Your task to perform on an android device: open chrome and create a bookmark for the current page Image 0: 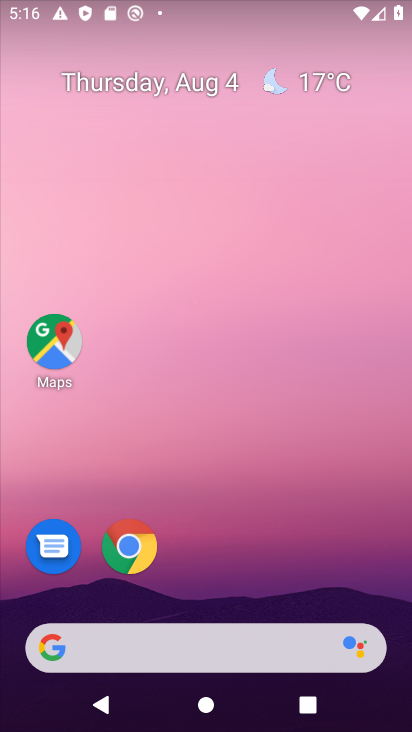
Step 0: drag from (193, 325) to (200, 160)
Your task to perform on an android device: open chrome and create a bookmark for the current page Image 1: 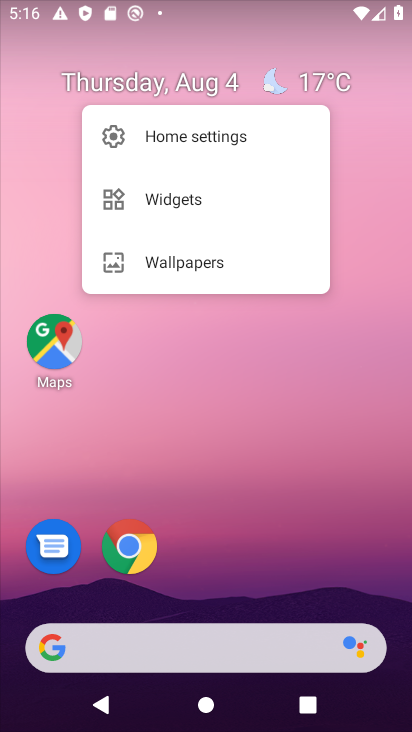
Step 1: click (209, 582)
Your task to perform on an android device: open chrome and create a bookmark for the current page Image 2: 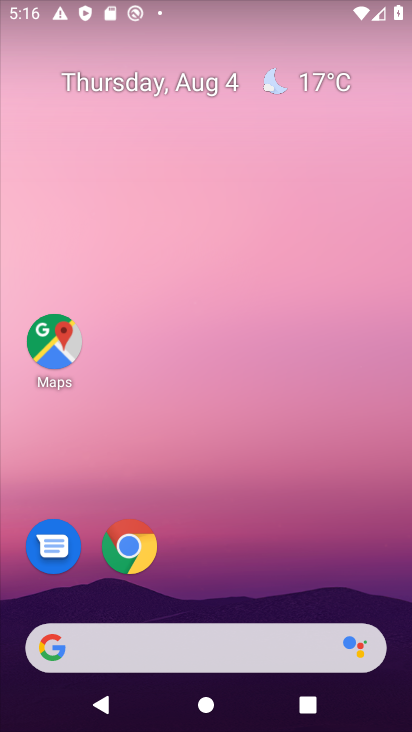
Step 2: drag from (209, 582) to (210, 17)
Your task to perform on an android device: open chrome and create a bookmark for the current page Image 3: 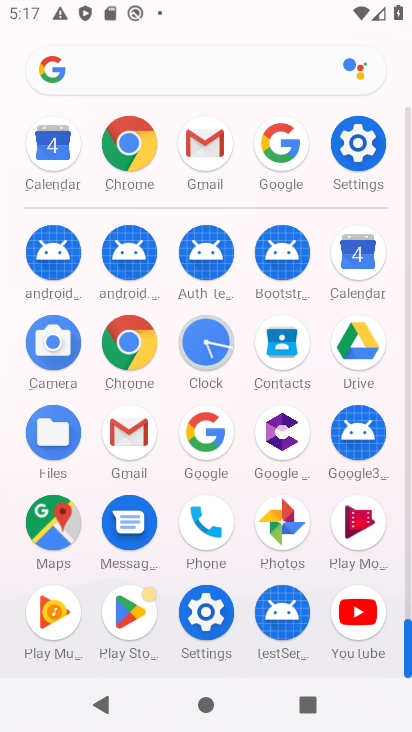
Step 3: click (128, 137)
Your task to perform on an android device: open chrome and create a bookmark for the current page Image 4: 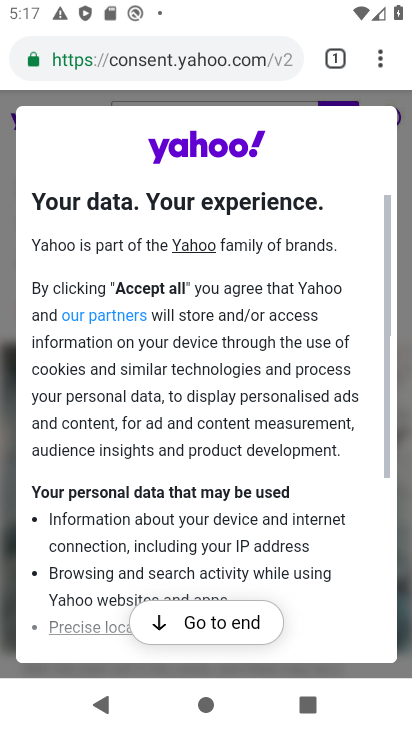
Step 4: click (381, 59)
Your task to perform on an android device: open chrome and create a bookmark for the current page Image 5: 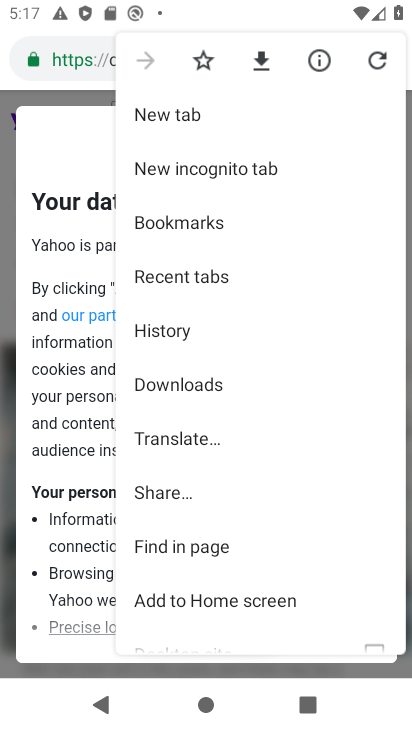
Step 5: click (181, 221)
Your task to perform on an android device: open chrome and create a bookmark for the current page Image 6: 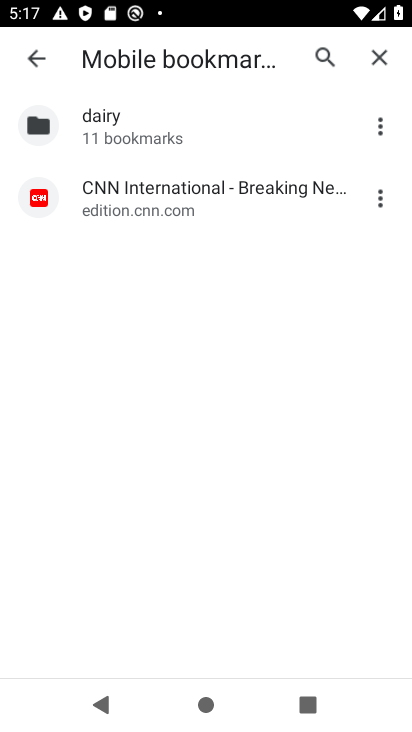
Step 6: click (182, 200)
Your task to perform on an android device: open chrome and create a bookmark for the current page Image 7: 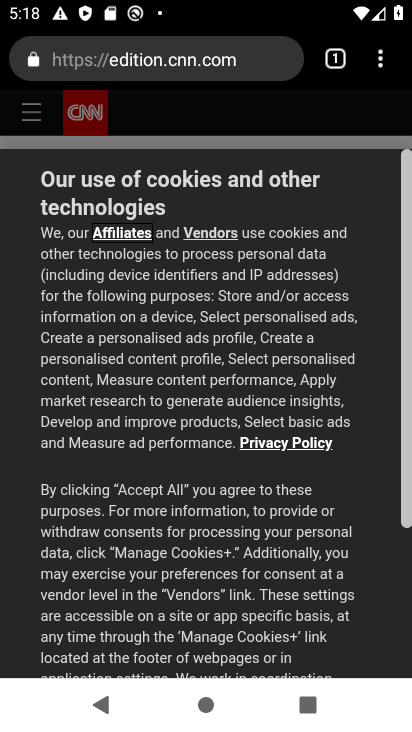
Step 7: task complete